Your task to perform on an android device: Look up the best rated bike seats on Target Image 0: 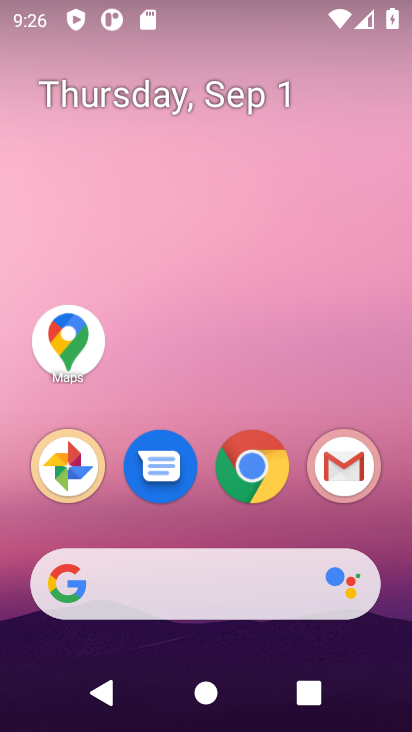
Step 0: drag from (387, 547) to (390, 85)
Your task to perform on an android device: Look up the best rated bike seats on Target Image 1: 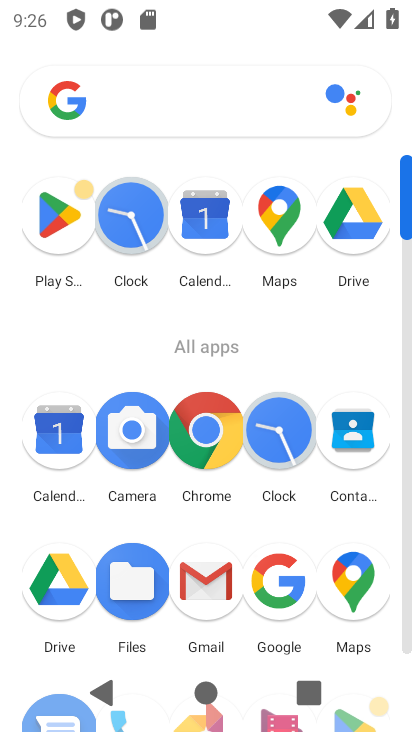
Step 1: click (214, 433)
Your task to perform on an android device: Look up the best rated bike seats on Target Image 2: 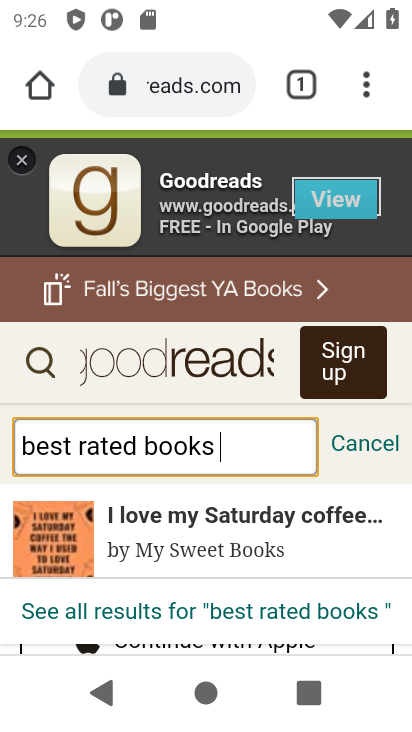
Step 2: click (197, 90)
Your task to perform on an android device: Look up the best rated bike seats on Target Image 3: 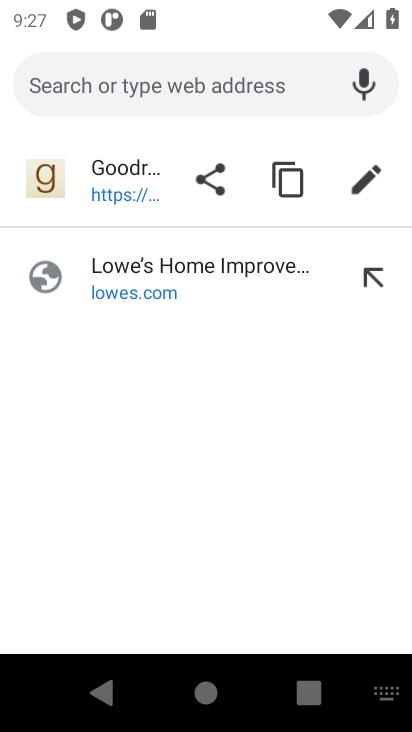
Step 3: press enter
Your task to perform on an android device: Look up the best rated bike seats on Target Image 4: 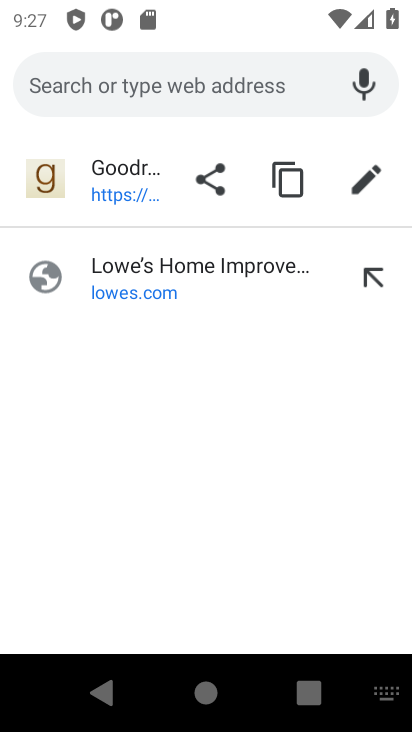
Step 4: type "target"
Your task to perform on an android device: Look up the best rated bike seats on Target Image 5: 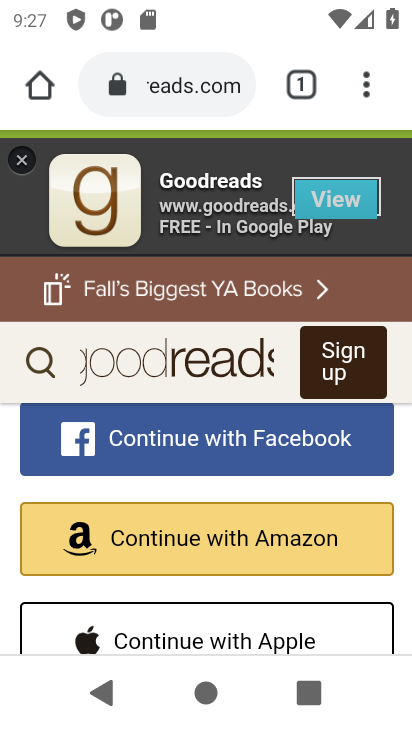
Step 5: click (198, 89)
Your task to perform on an android device: Look up the best rated bike seats on Target Image 6: 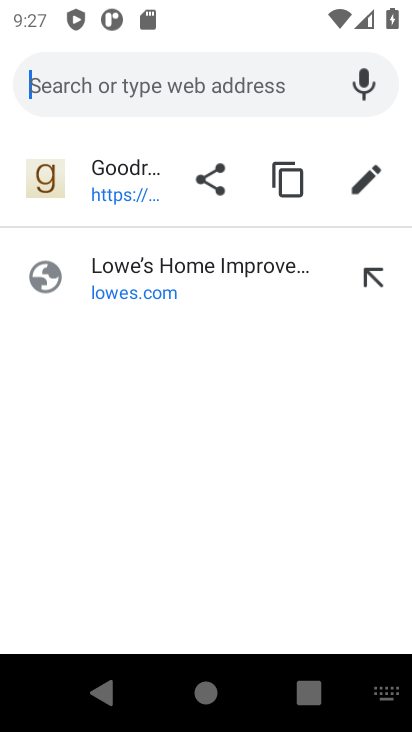
Step 6: type "target"
Your task to perform on an android device: Look up the best rated bike seats on Target Image 7: 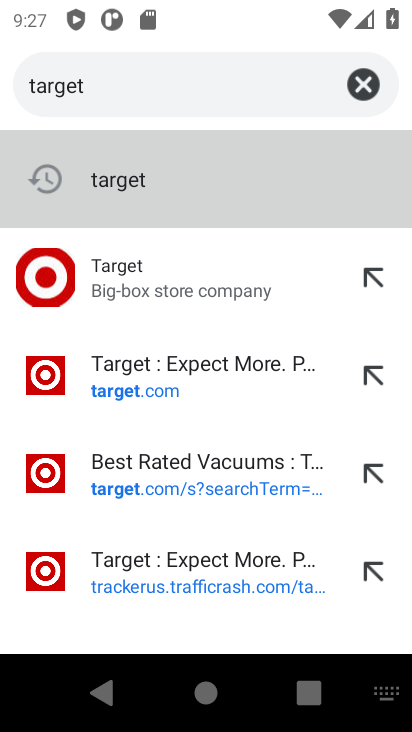
Step 7: click (164, 182)
Your task to perform on an android device: Look up the best rated bike seats on Target Image 8: 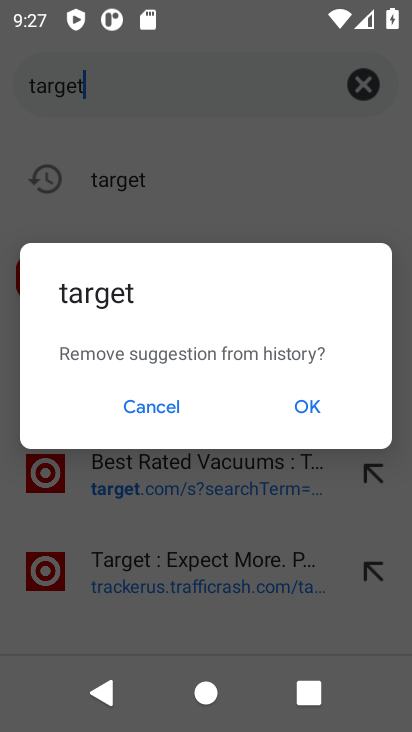
Step 8: click (306, 404)
Your task to perform on an android device: Look up the best rated bike seats on Target Image 9: 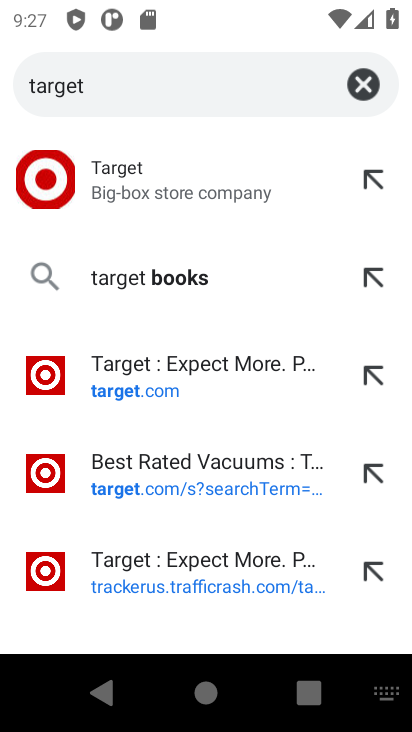
Step 9: click (163, 183)
Your task to perform on an android device: Look up the best rated bike seats on Target Image 10: 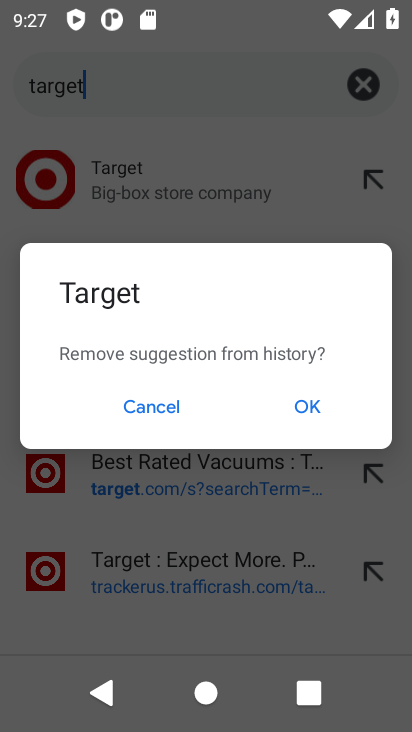
Step 10: click (310, 408)
Your task to perform on an android device: Look up the best rated bike seats on Target Image 11: 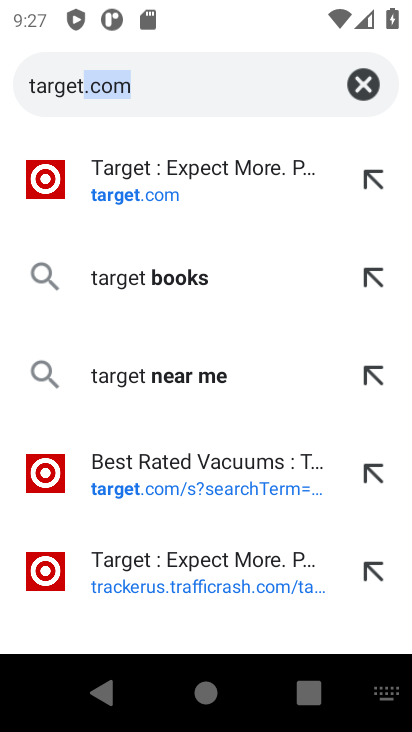
Step 11: click (149, 176)
Your task to perform on an android device: Look up the best rated bike seats on Target Image 12: 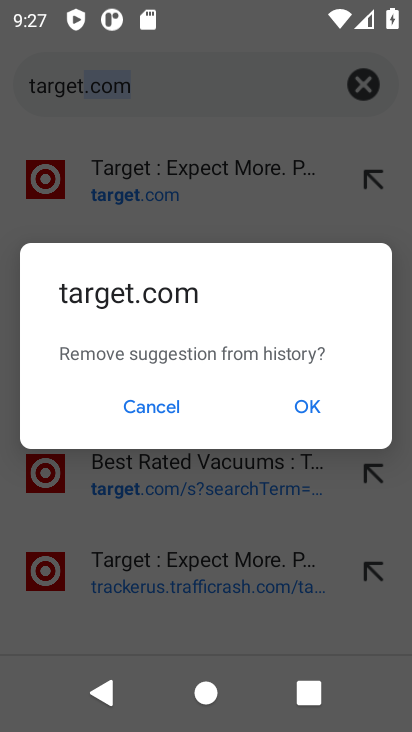
Step 12: click (308, 407)
Your task to perform on an android device: Look up the best rated bike seats on Target Image 13: 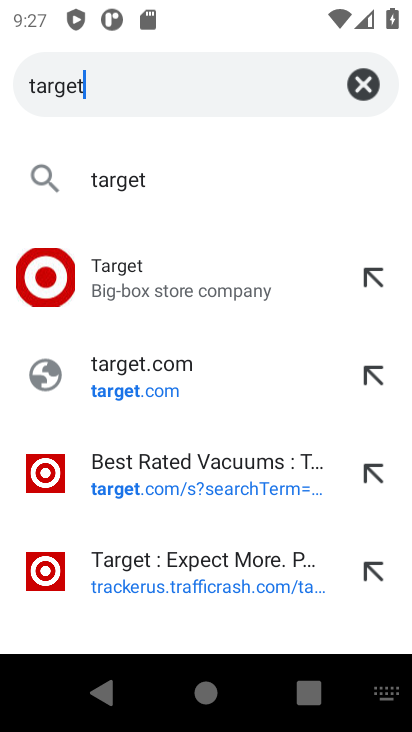
Step 13: click (129, 178)
Your task to perform on an android device: Look up the best rated bike seats on Target Image 14: 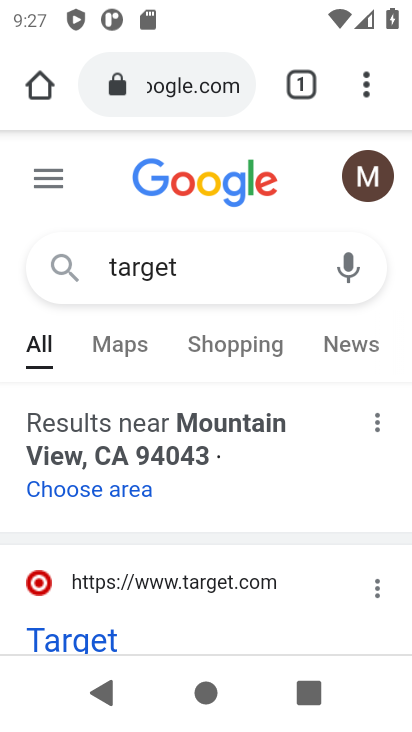
Step 14: drag from (326, 580) to (334, 351)
Your task to perform on an android device: Look up the best rated bike seats on Target Image 15: 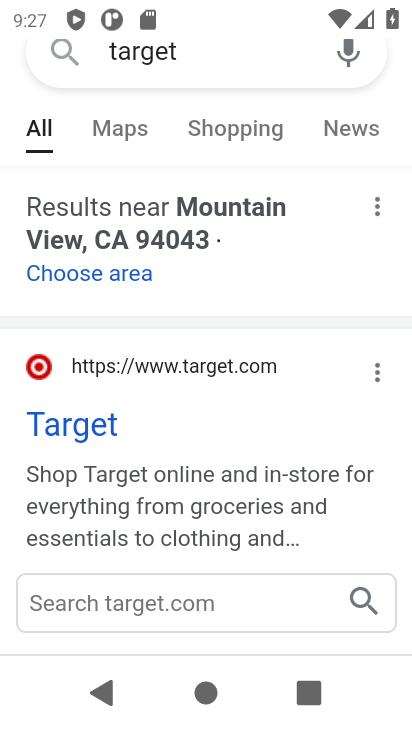
Step 15: click (85, 426)
Your task to perform on an android device: Look up the best rated bike seats on Target Image 16: 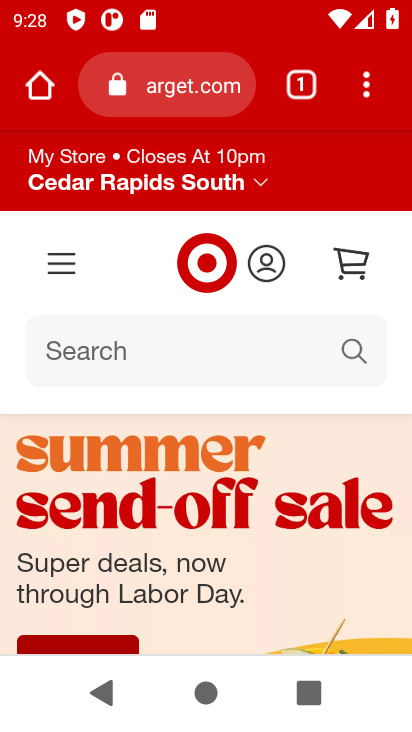
Step 16: click (241, 352)
Your task to perform on an android device: Look up the best rated bike seats on Target Image 17: 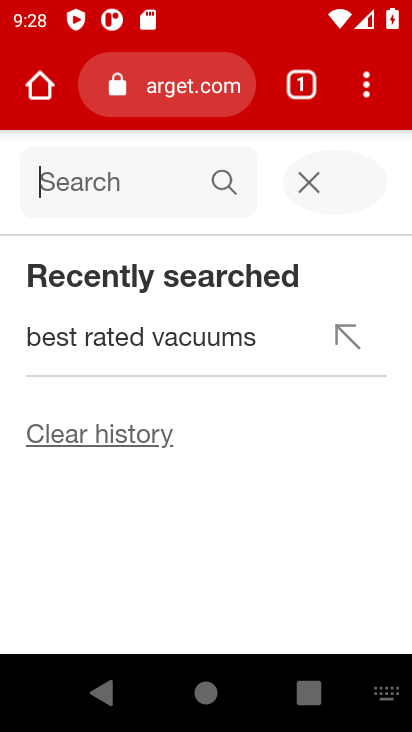
Step 17: press enter
Your task to perform on an android device: Look up the best rated bike seats on Target Image 18: 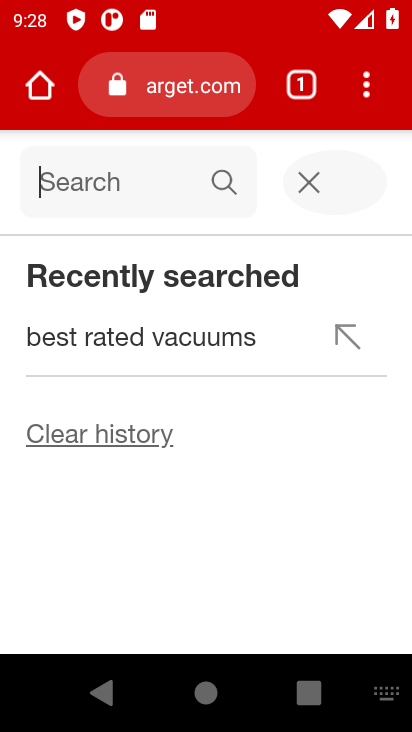
Step 18: type "best rated bike seats "
Your task to perform on an android device: Look up the best rated bike seats on Target Image 19: 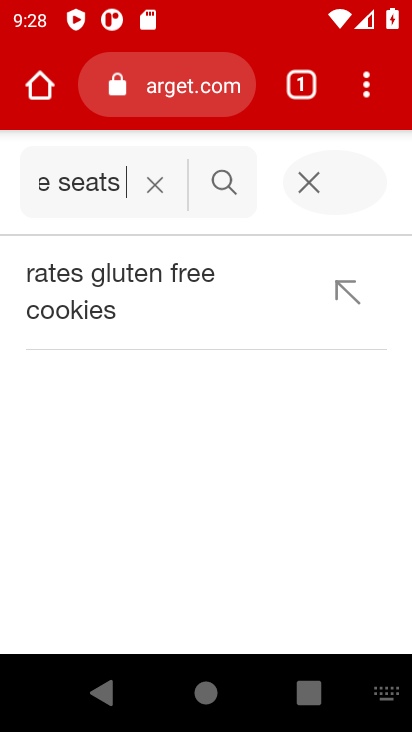
Step 19: click (220, 170)
Your task to perform on an android device: Look up the best rated bike seats on Target Image 20: 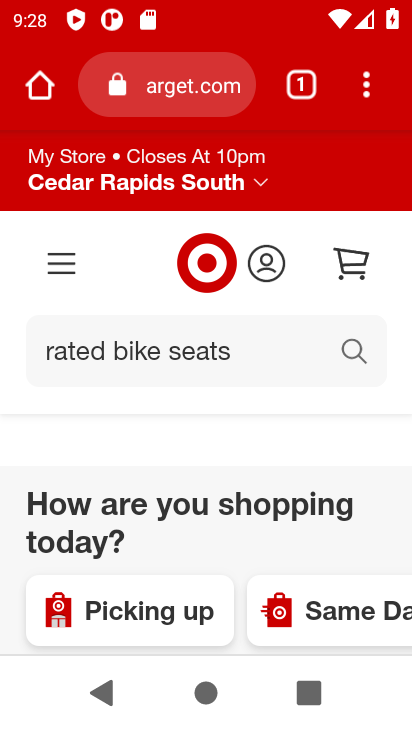
Step 20: task complete